Your task to perform on an android device: Do I have any events this weekend? Image 0: 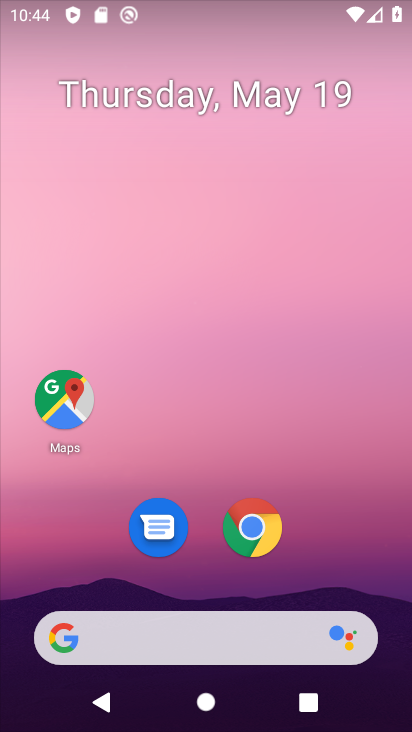
Step 0: drag from (210, 572) to (225, 57)
Your task to perform on an android device: Do I have any events this weekend? Image 1: 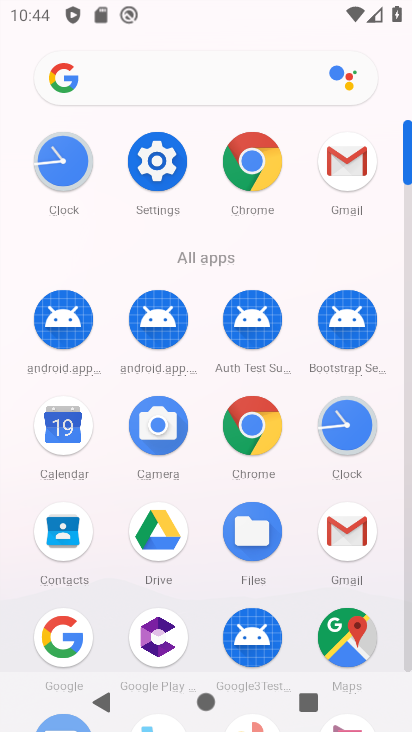
Step 1: click (72, 437)
Your task to perform on an android device: Do I have any events this weekend? Image 2: 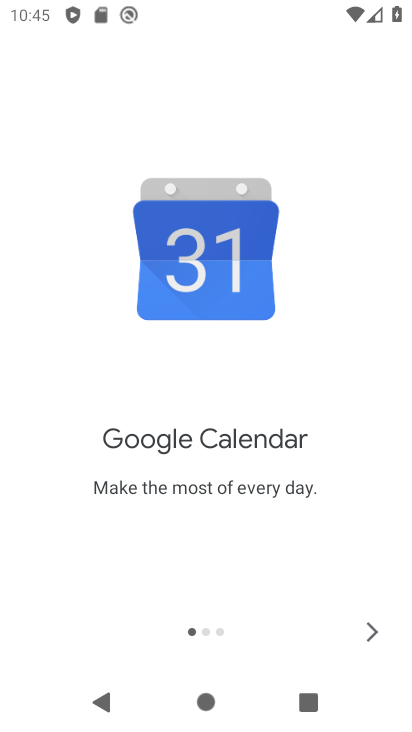
Step 2: click (373, 635)
Your task to perform on an android device: Do I have any events this weekend? Image 3: 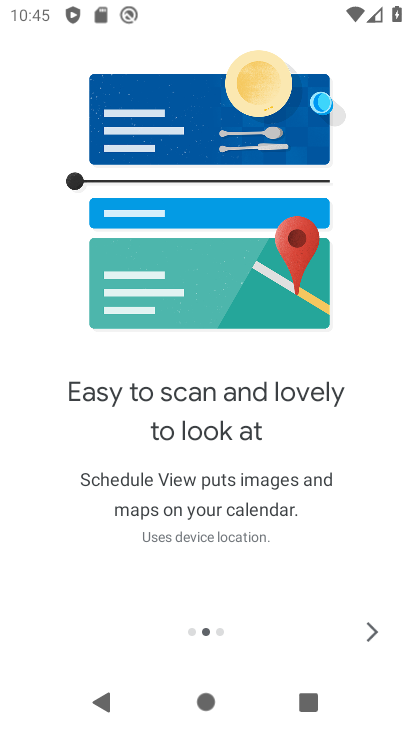
Step 3: click (366, 638)
Your task to perform on an android device: Do I have any events this weekend? Image 4: 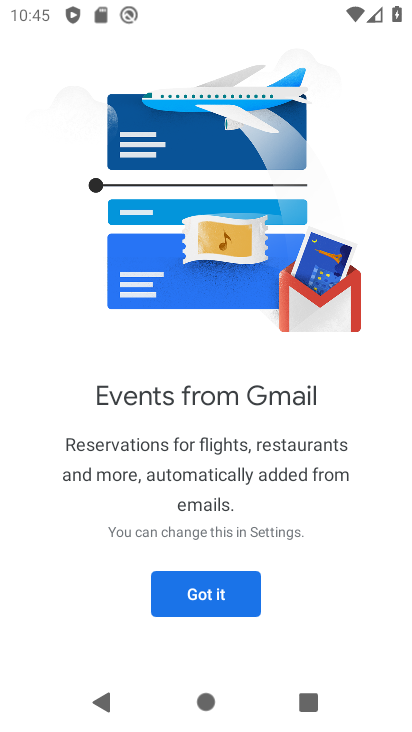
Step 4: click (234, 594)
Your task to perform on an android device: Do I have any events this weekend? Image 5: 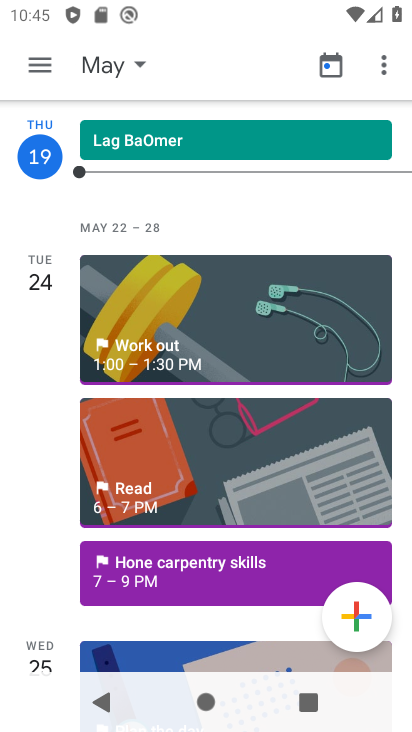
Step 5: click (44, 71)
Your task to perform on an android device: Do I have any events this weekend? Image 6: 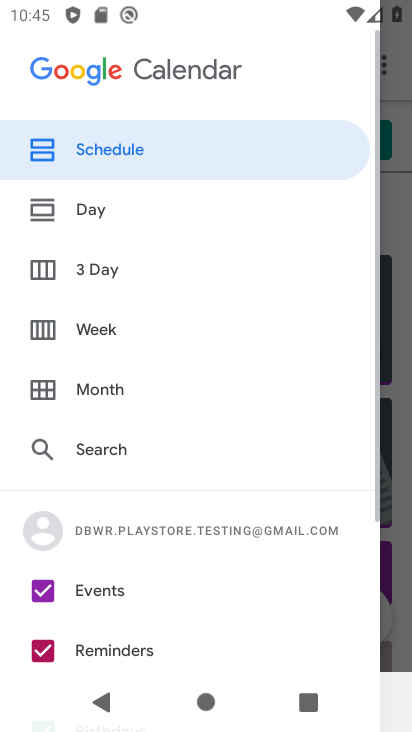
Step 6: drag from (99, 527) to (158, 291)
Your task to perform on an android device: Do I have any events this weekend? Image 7: 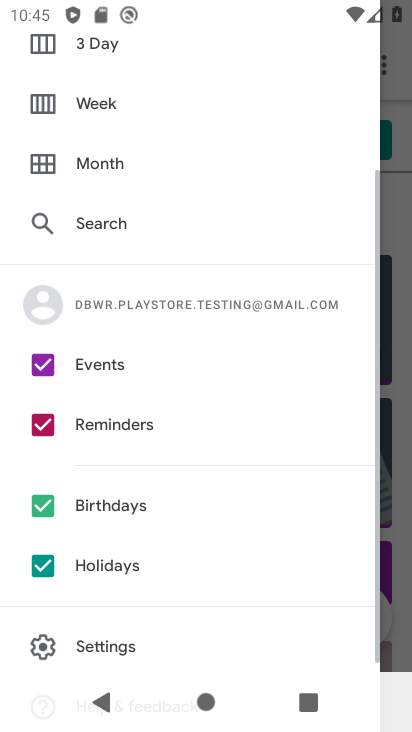
Step 7: click (111, 428)
Your task to perform on an android device: Do I have any events this weekend? Image 8: 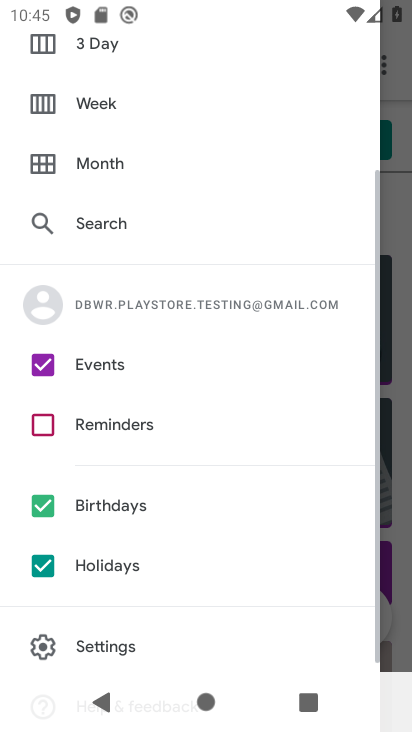
Step 8: click (91, 506)
Your task to perform on an android device: Do I have any events this weekend? Image 9: 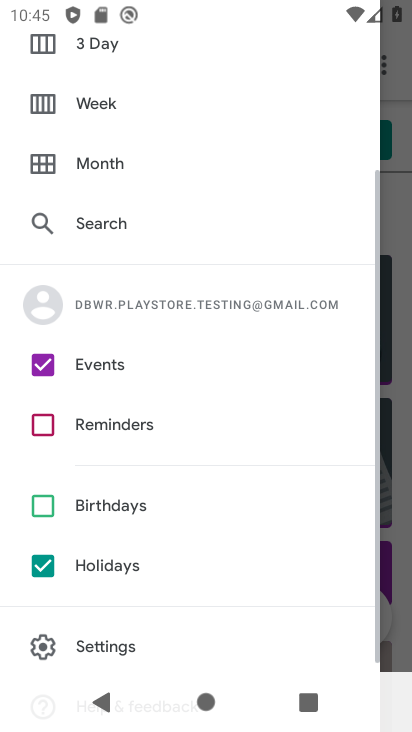
Step 9: click (81, 573)
Your task to perform on an android device: Do I have any events this weekend? Image 10: 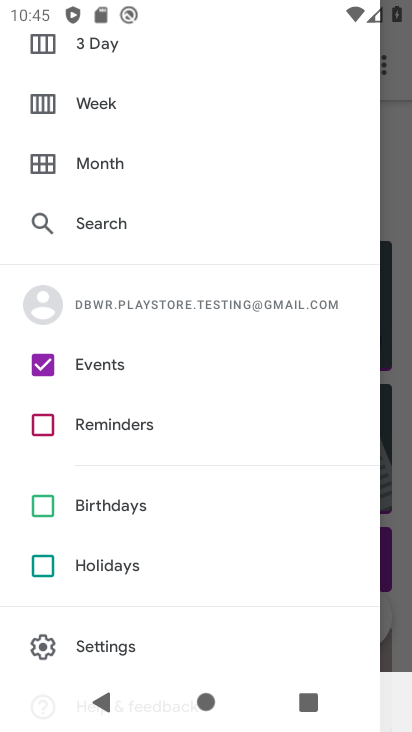
Step 10: drag from (263, 176) to (254, 465)
Your task to perform on an android device: Do I have any events this weekend? Image 11: 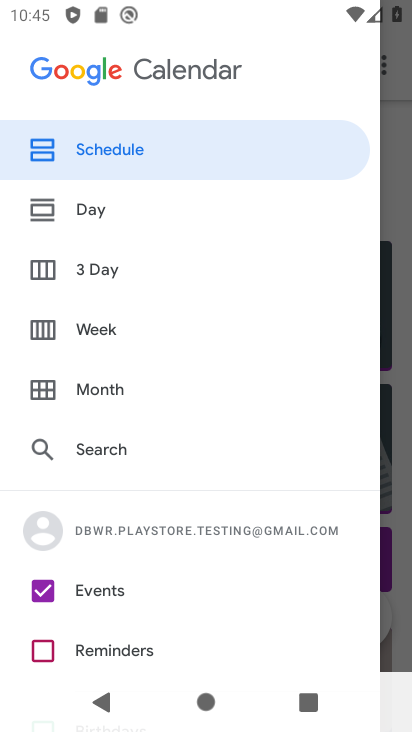
Step 11: click (113, 331)
Your task to perform on an android device: Do I have any events this weekend? Image 12: 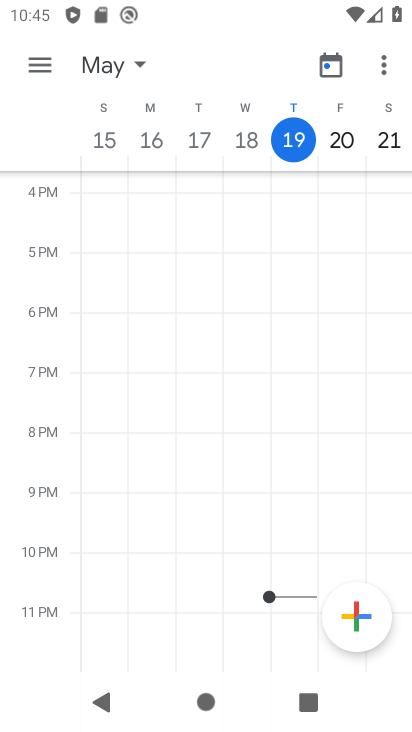
Step 12: task complete